Your task to perform on an android device: Find coffee shops on Maps Image 0: 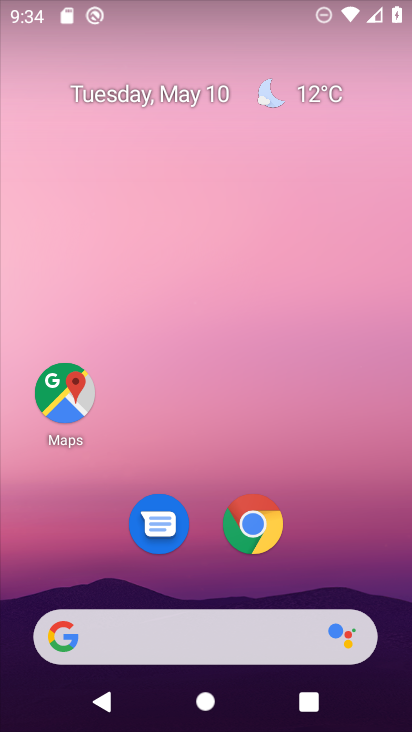
Step 0: click (61, 387)
Your task to perform on an android device: Find coffee shops on Maps Image 1: 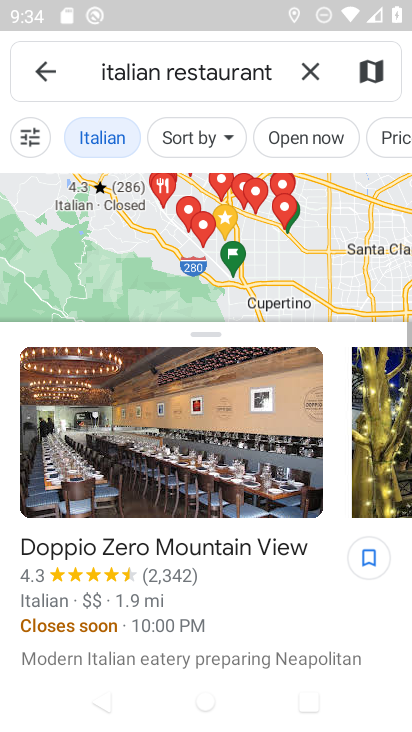
Step 1: click (306, 57)
Your task to perform on an android device: Find coffee shops on Maps Image 2: 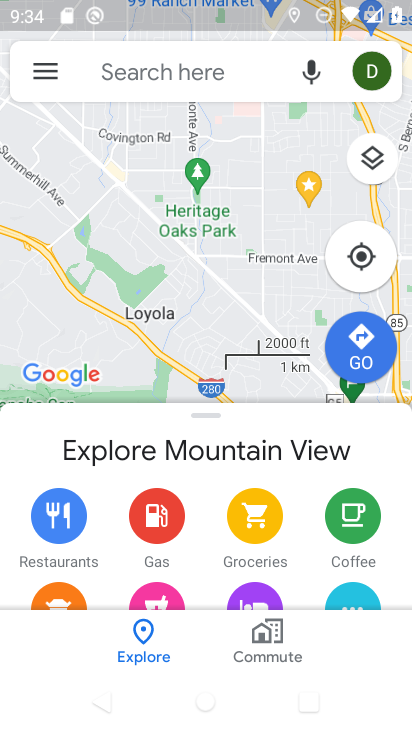
Step 2: click (191, 65)
Your task to perform on an android device: Find coffee shops on Maps Image 3: 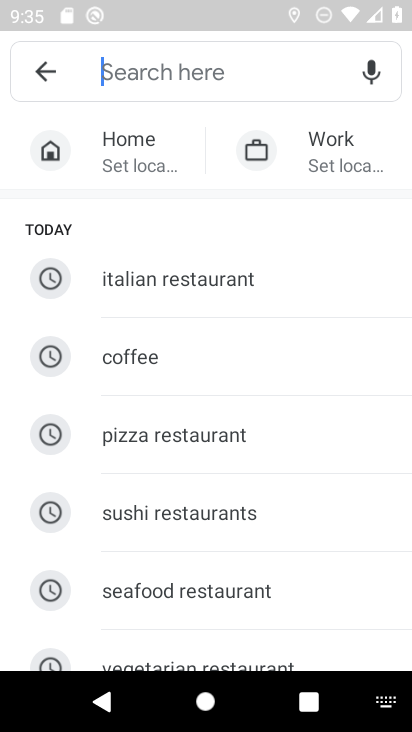
Step 3: click (124, 357)
Your task to perform on an android device: Find coffee shops on Maps Image 4: 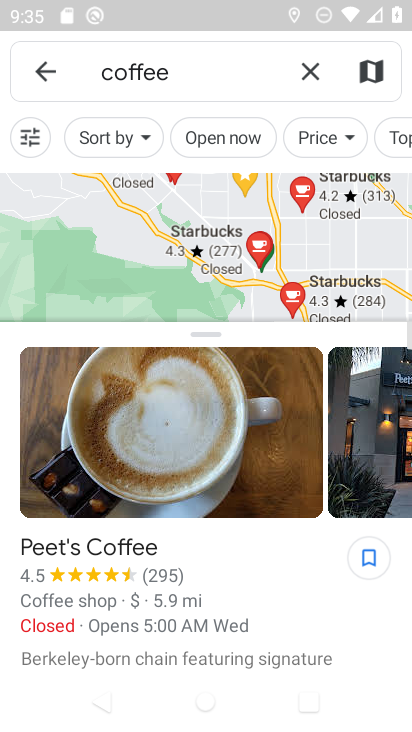
Step 4: task complete